Your task to perform on an android device: open app "Fetch Rewards" (install if not already installed) and enter user name: "Westwood@yahoo.com" and password: "qualifying" Image 0: 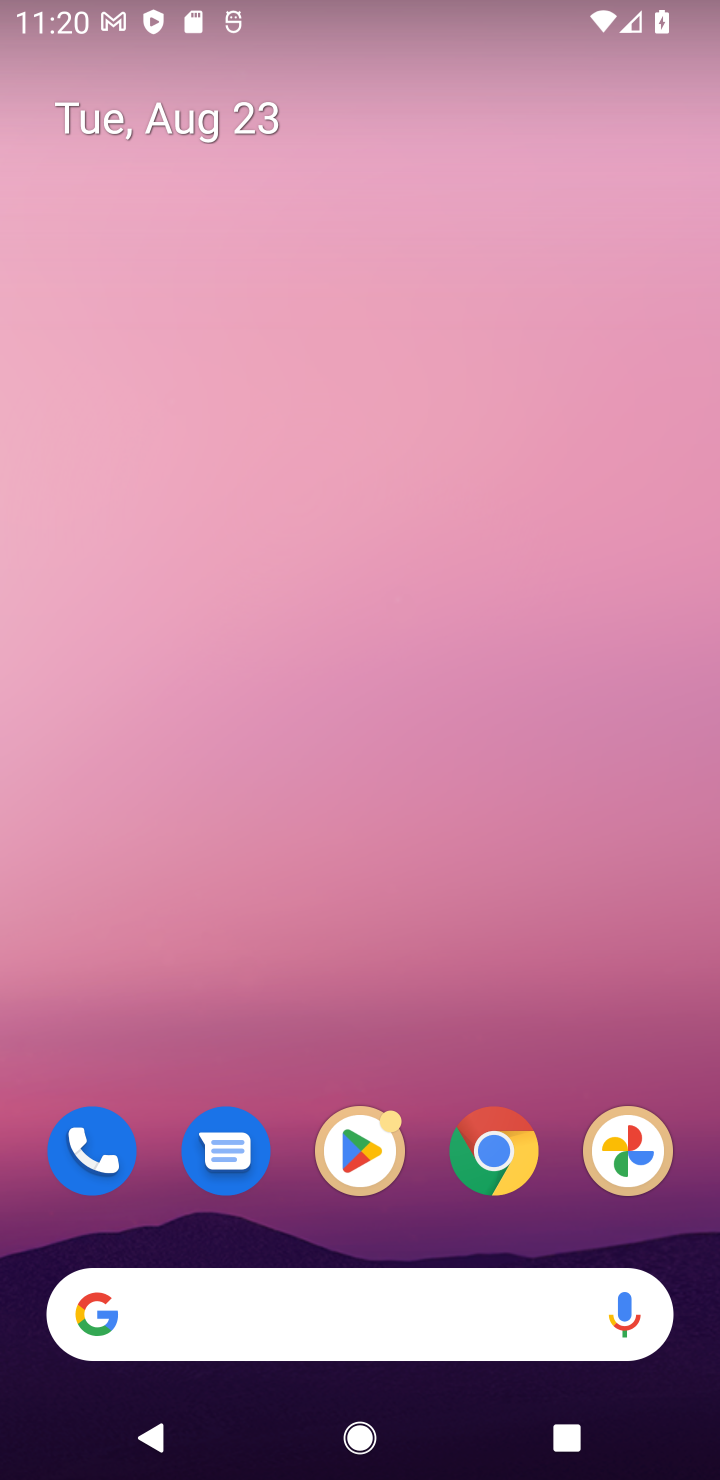
Step 0: drag from (379, 1225) to (431, 126)
Your task to perform on an android device: open app "Fetch Rewards" (install if not already installed) and enter user name: "Westwood@yahoo.com" and password: "qualifying" Image 1: 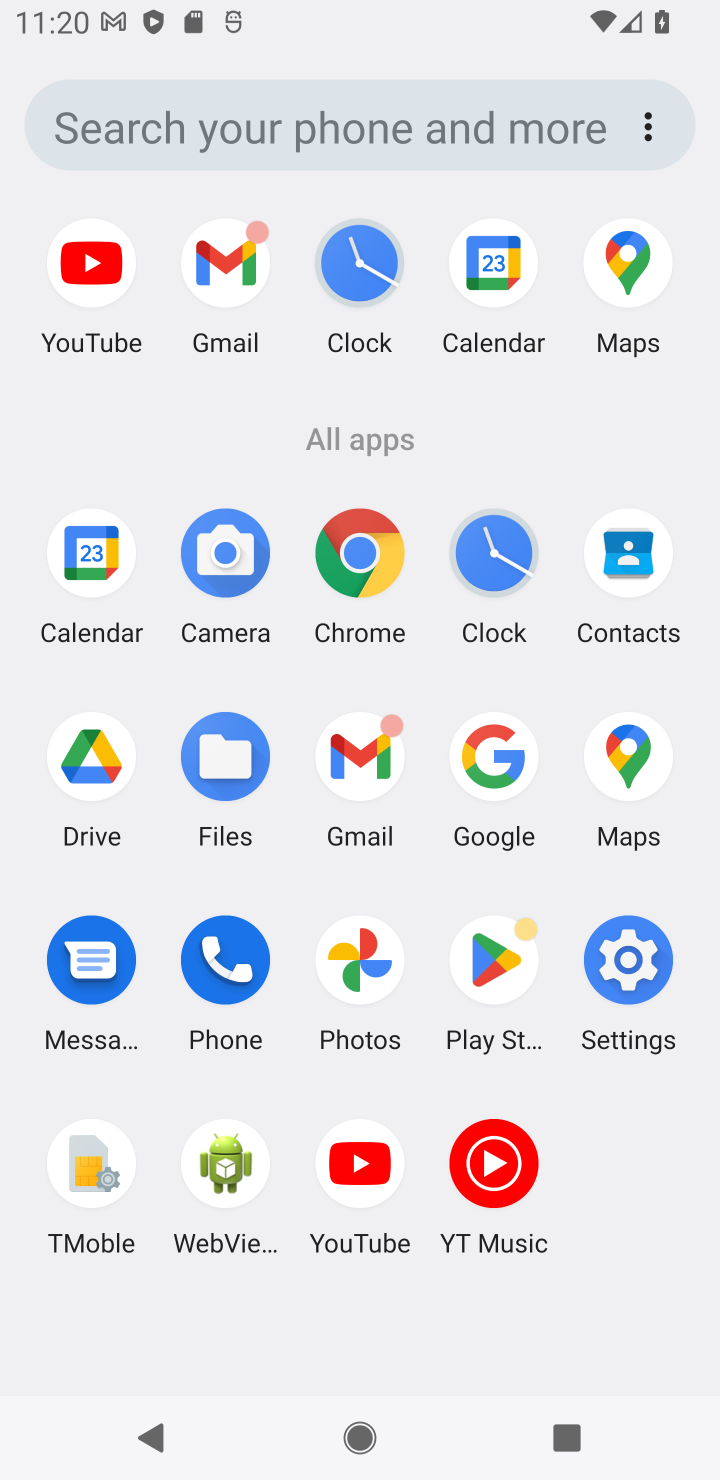
Step 1: click (500, 970)
Your task to perform on an android device: open app "Fetch Rewards" (install if not already installed) and enter user name: "Westwood@yahoo.com" and password: "qualifying" Image 2: 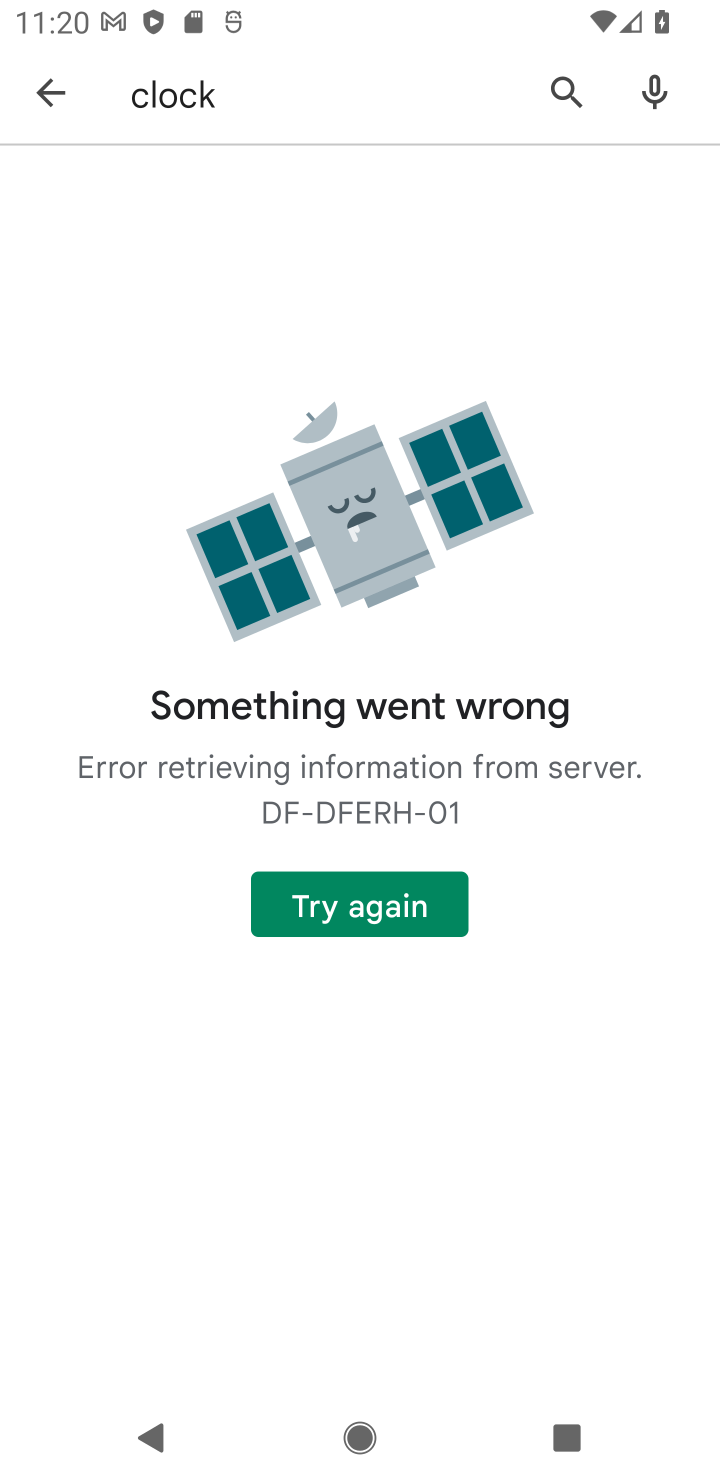
Step 2: press back button
Your task to perform on an android device: open app "Fetch Rewards" (install if not already installed) and enter user name: "Westwood@yahoo.com" and password: "qualifying" Image 3: 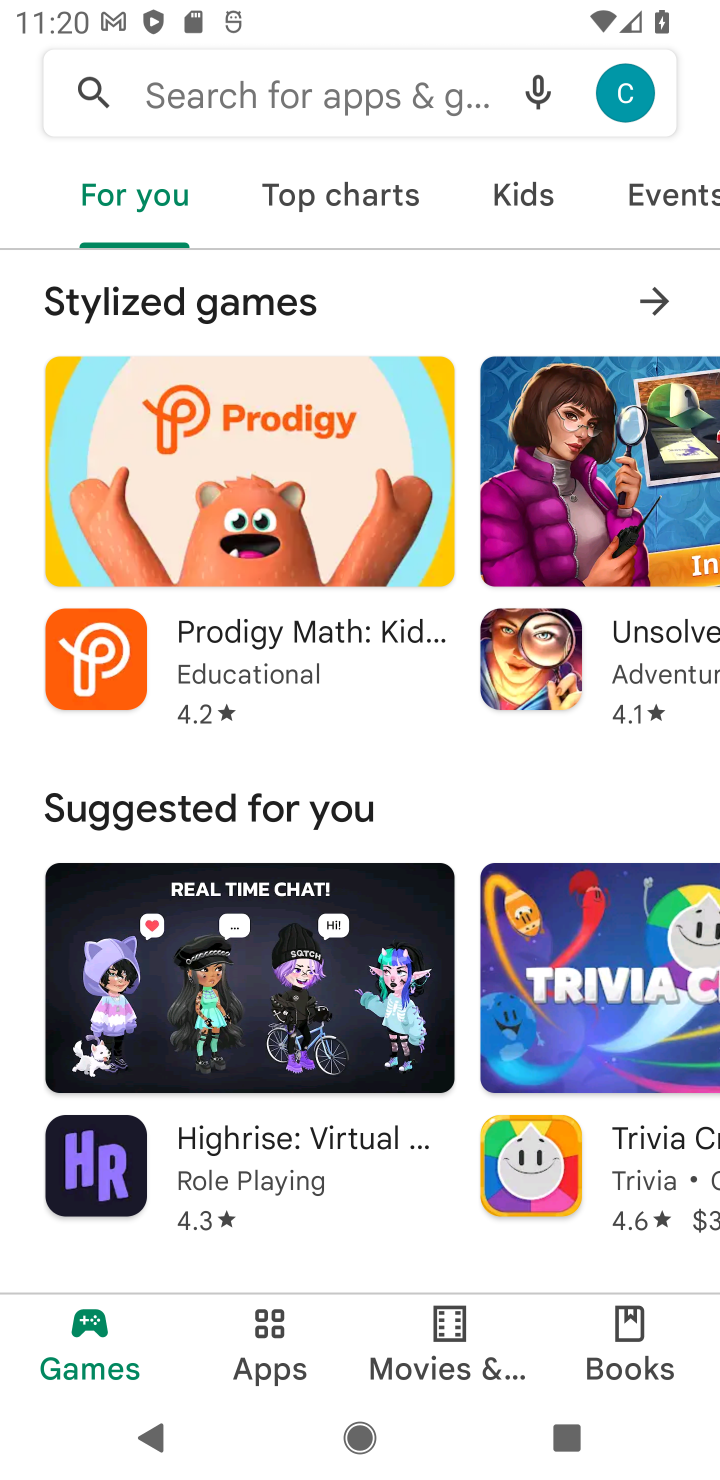
Step 3: click (356, 94)
Your task to perform on an android device: open app "Fetch Rewards" (install if not already installed) and enter user name: "Westwood@yahoo.com" and password: "qualifying" Image 4: 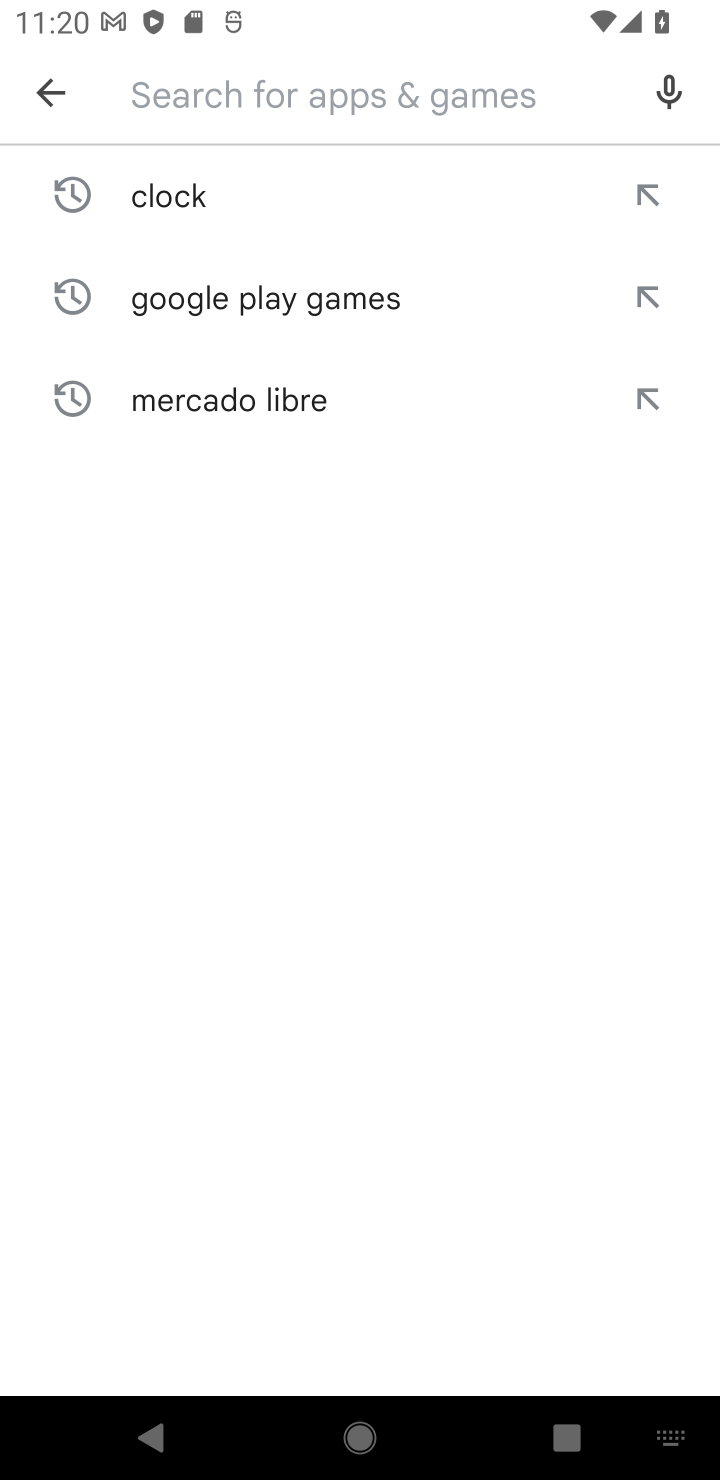
Step 4: click (390, 119)
Your task to perform on an android device: open app "Fetch Rewards" (install if not already installed) and enter user name: "Westwood@yahoo.com" and password: "qualifying" Image 5: 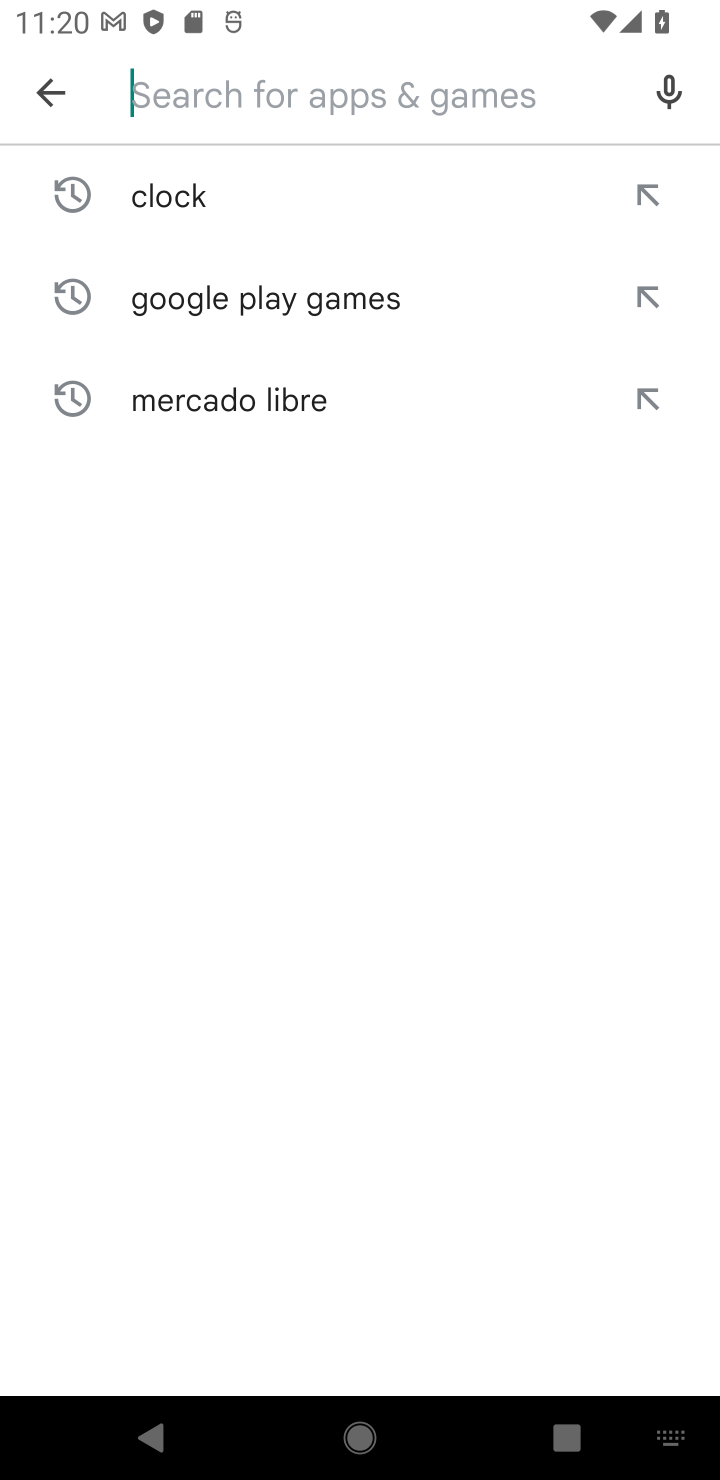
Step 5: type "F"
Your task to perform on an android device: open app "Fetch Rewards" (install if not already installed) and enter user name: "Westwood@yahoo.com" and password: "qualifying" Image 6: 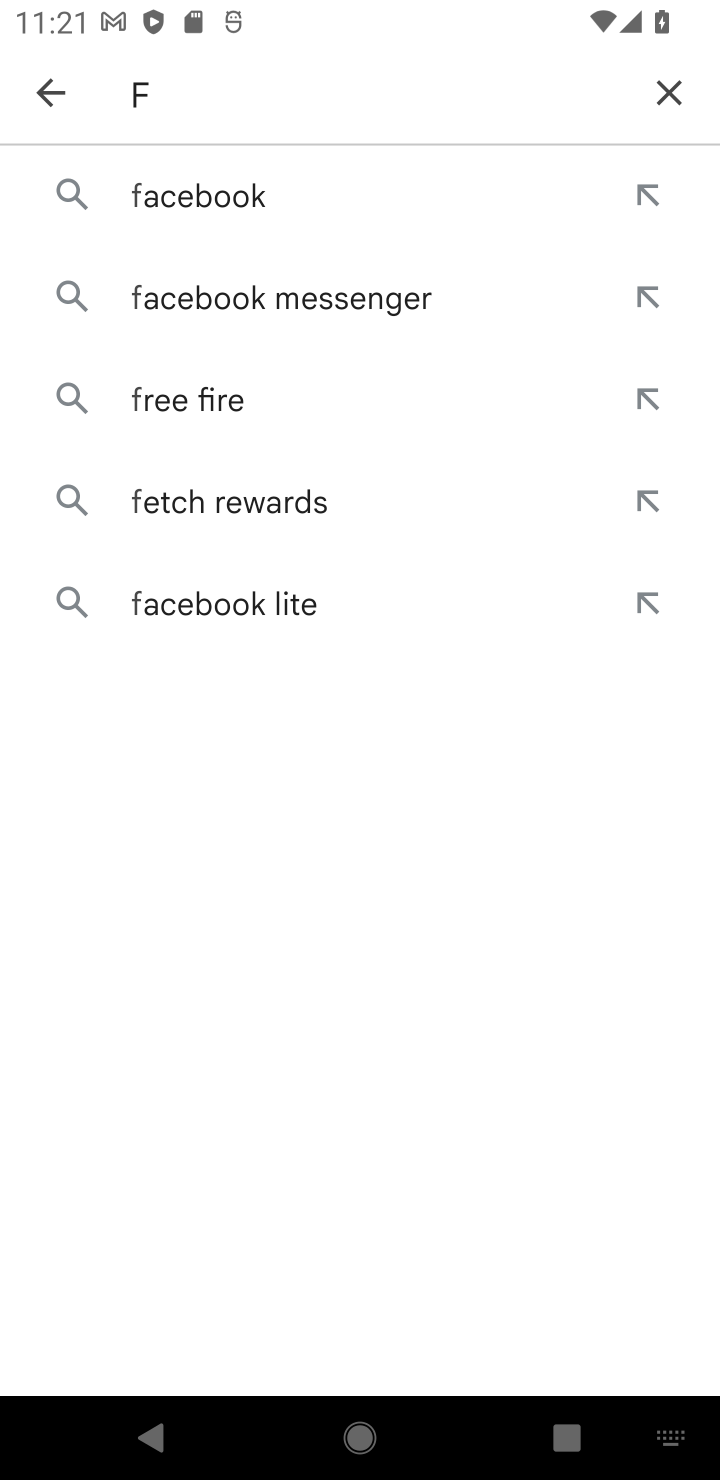
Step 6: type "etch  Rewards"
Your task to perform on an android device: open app "Fetch Rewards" (install if not already installed) and enter user name: "Westwood@yahoo.com" and password: "qualifying" Image 7: 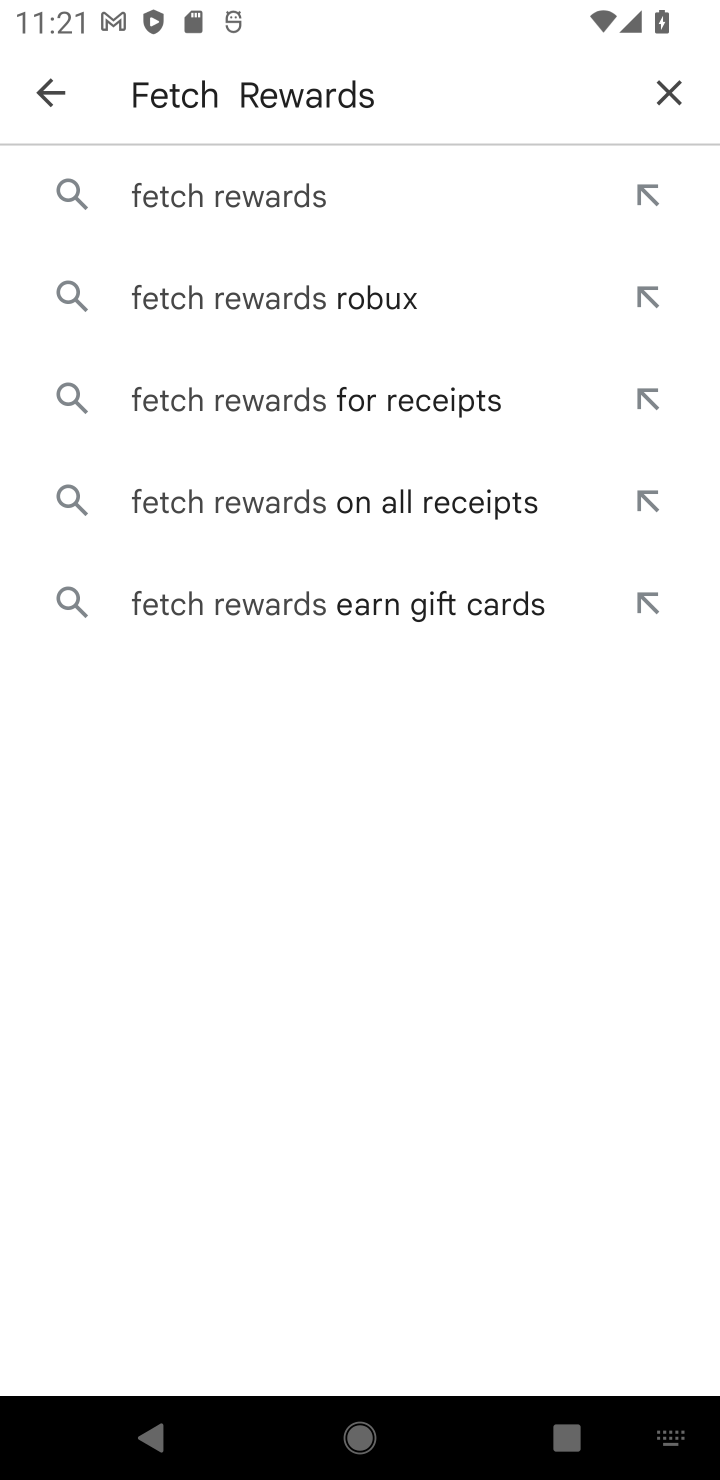
Step 7: click (266, 186)
Your task to perform on an android device: open app "Fetch Rewards" (install if not already installed) and enter user name: "Westwood@yahoo.com" and password: "qualifying" Image 8: 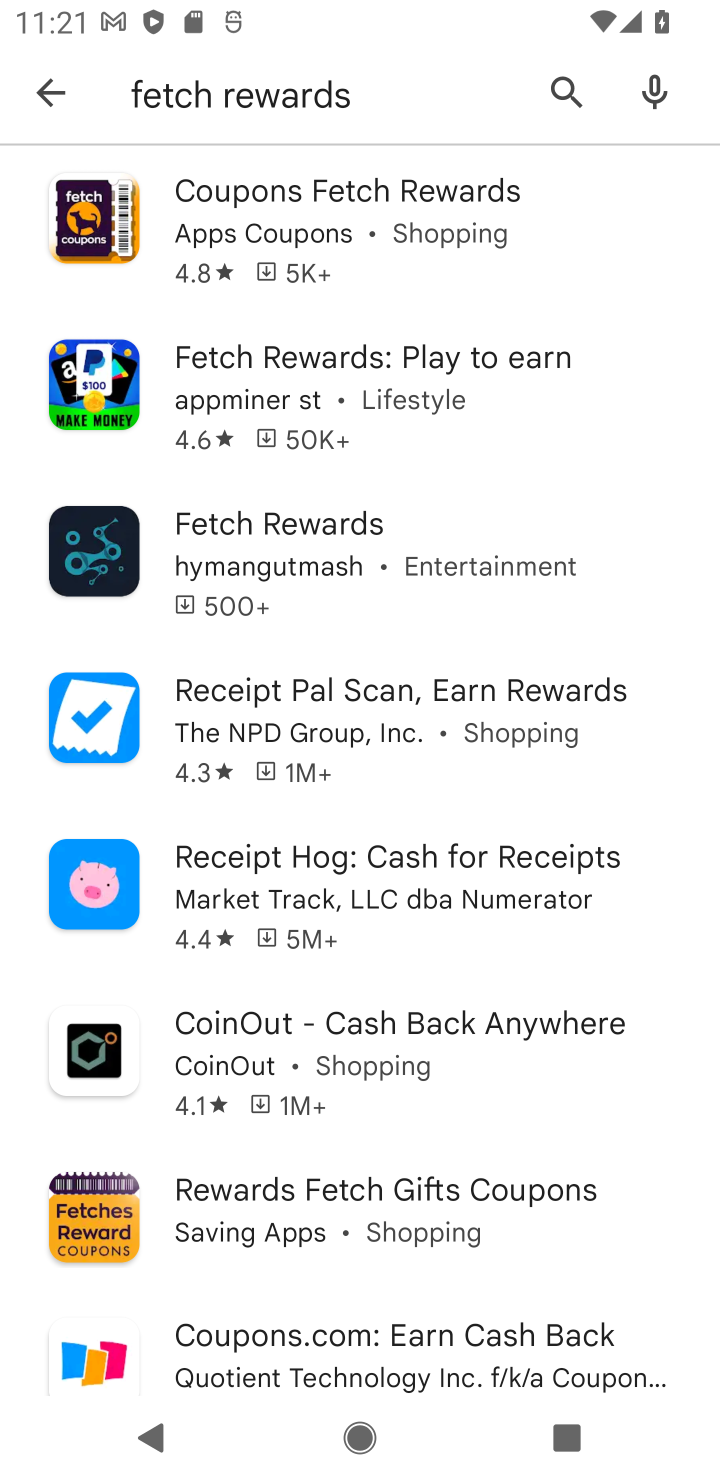
Step 8: drag from (354, 1154) to (514, 859)
Your task to perform on an android device: open app "Fetch Rewards" (install if not already installed) and enter user name: "Westwood@yahoo.com" and password: "qualifying" Image 9: 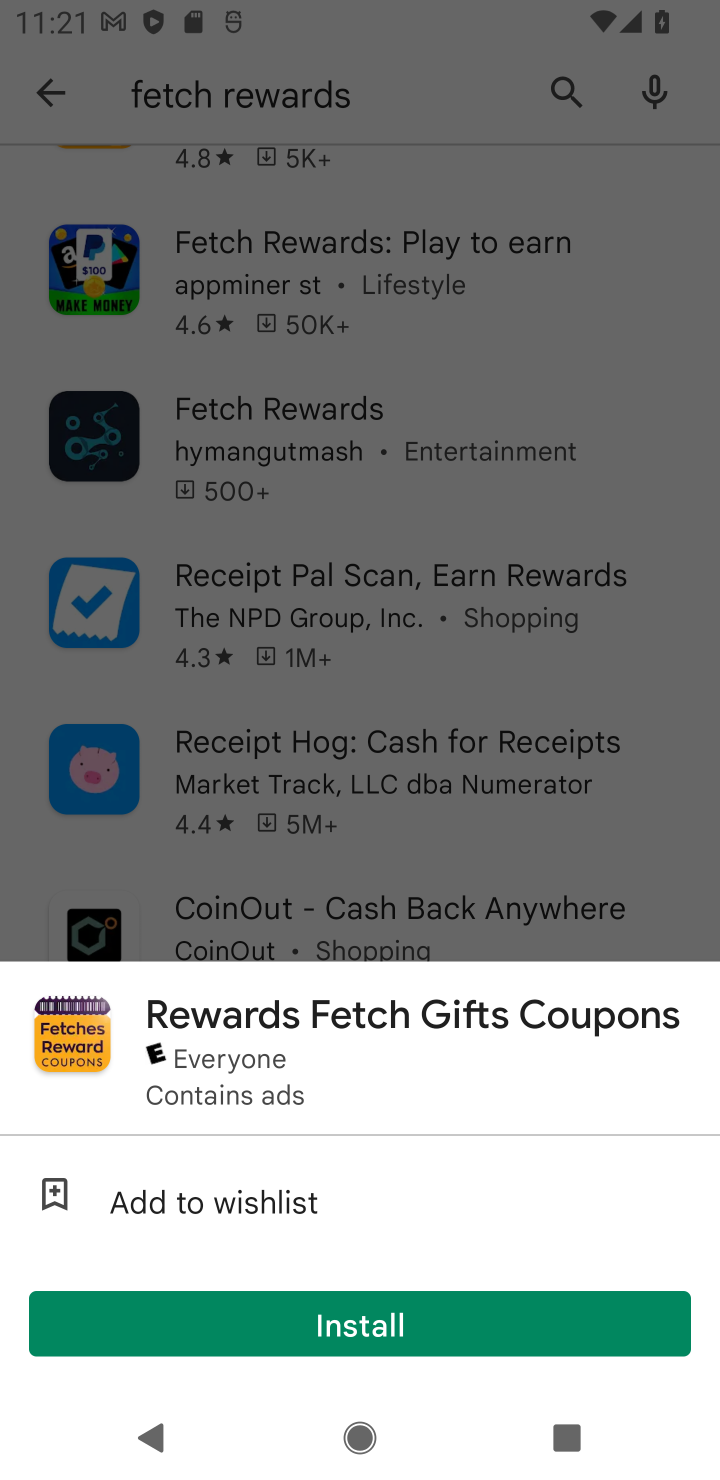
Step 9: click (615, 466)
Your task to perform on an android device: open app "Fetch Rewards" (install if not already installed) and enter user name: "Westwood@yahoo.com" and password: "qualifying" Image 10: 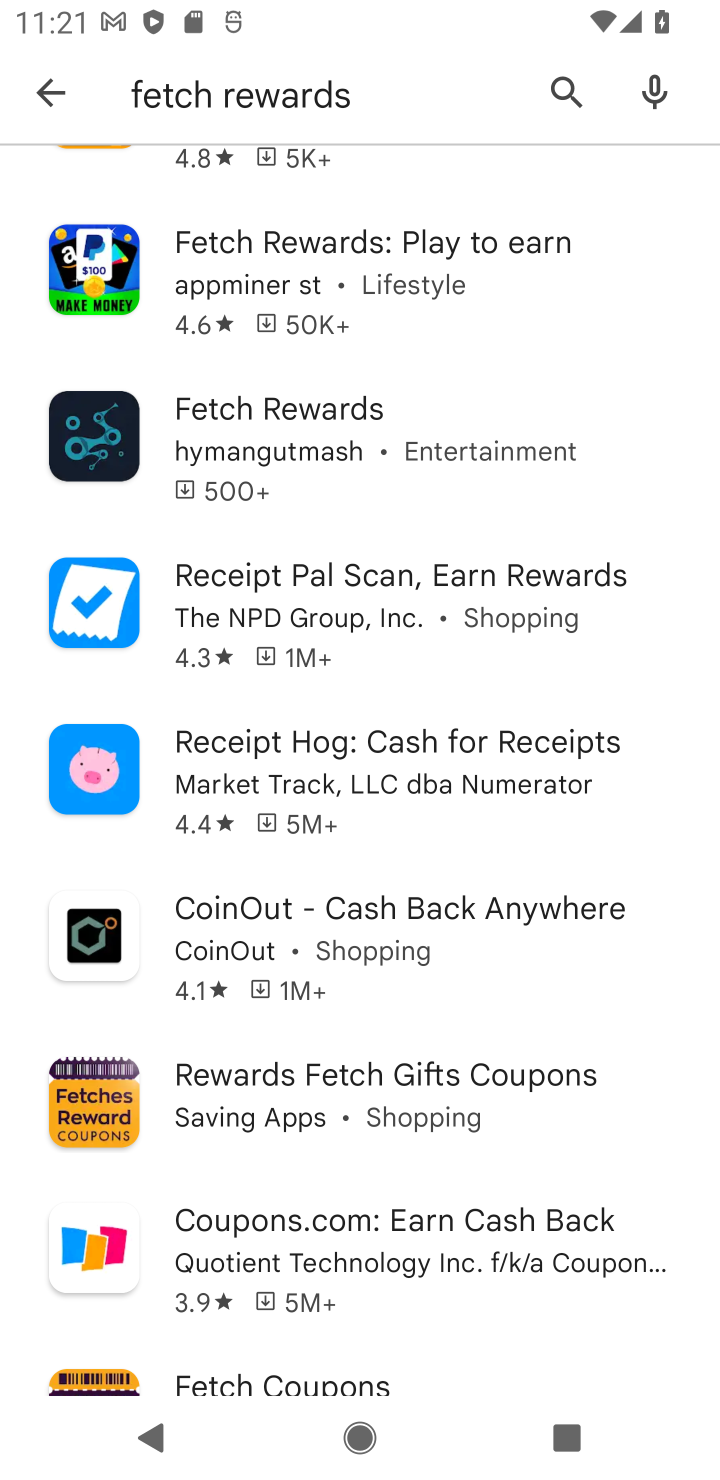
Step 10: task complete